Your task to perform on an android device: change the clock display to analog Image 0: 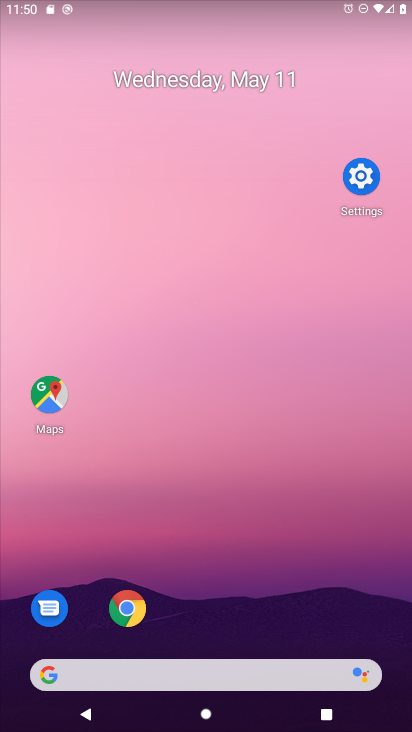
Step 0: drag from (325, 593) to (157, 37)
Your task to perform on an android device: change the clock display to analog Image 1: 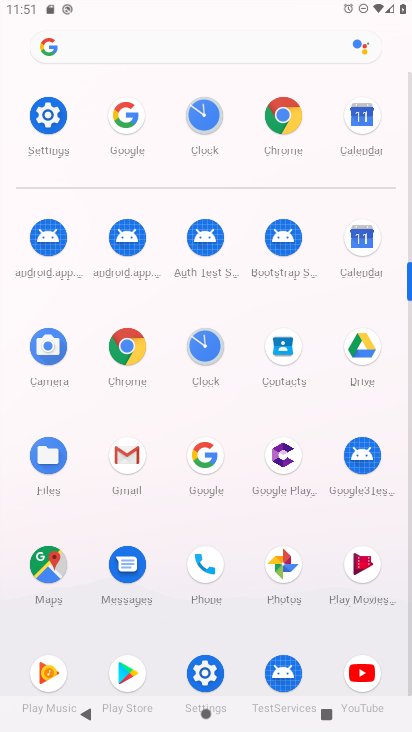
Step 1: click (211, 338)
Your task to perform on an android device: change the clock display to analog Image 2: 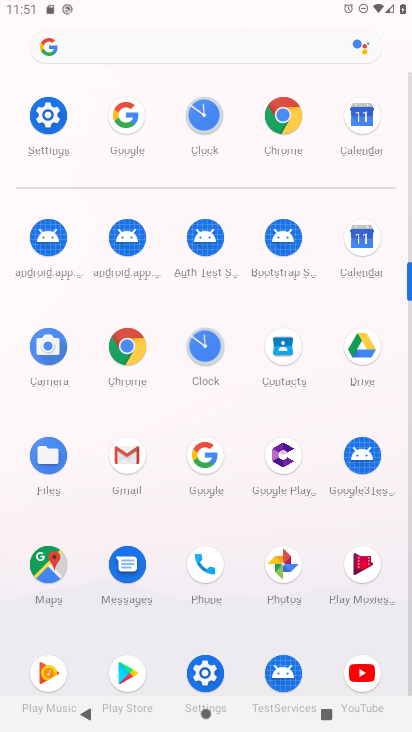
Step 2: click (211, 338)
Your task to perform on an android device: change the clock display to analog Image 3: 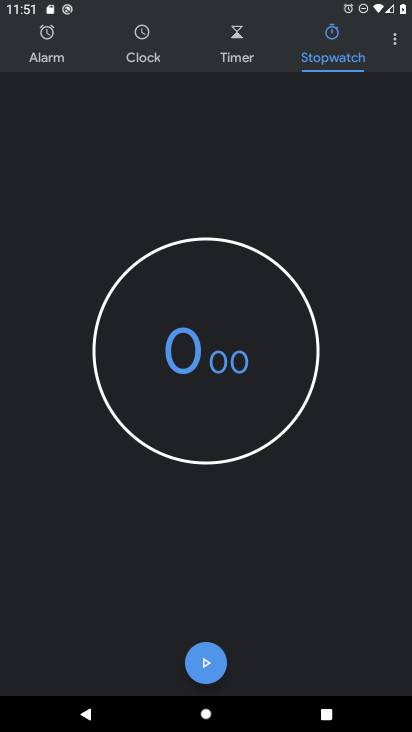
Step 3: click (211, 338)
Your task to perform on an android device: change the clock display to analog Image 4: 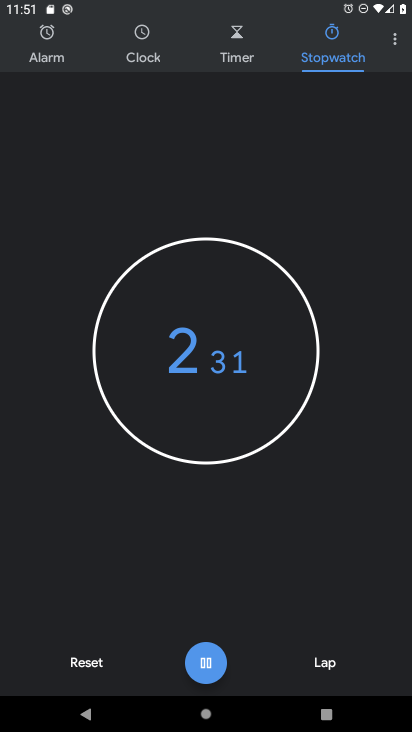
Step 4: drag from (391, 34) to (391, 80)
Your task to perform on an android device: change the clock display to analog Image 5: 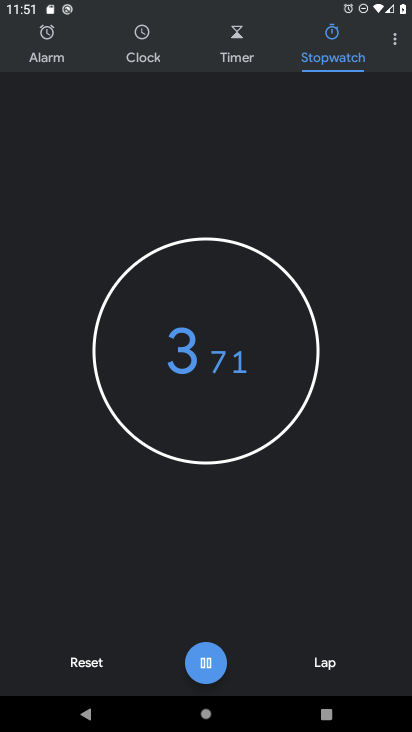
Step 5: click (207, 650)
Your task to perform on an android device: change the clock display to analog Image 6: 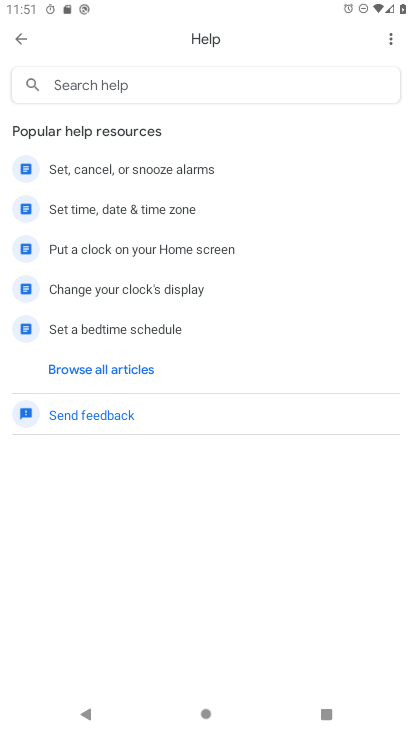
Step 6: press back button
Your task to perform on an android device: change the clock display to analog Image 7: 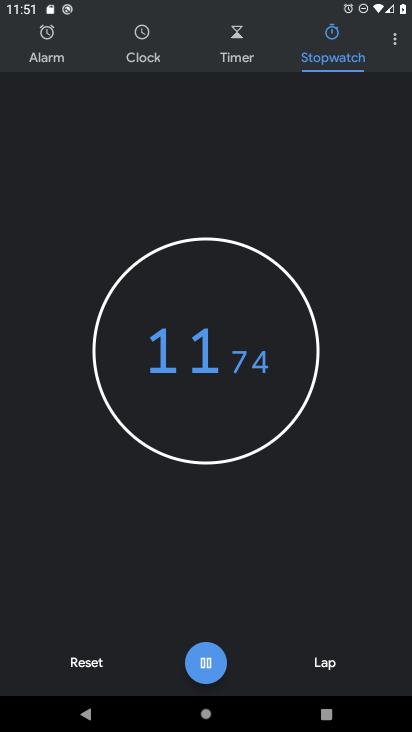
Step 7: click (207, 666)
Your task to perform on an android device: change the clock display to analog Image 8: 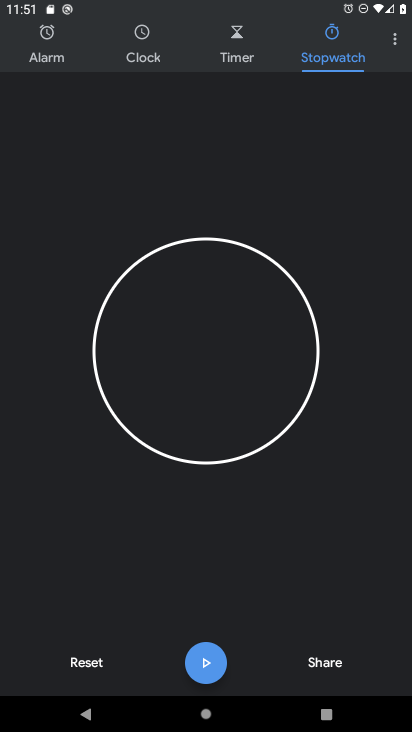
Step 8: click (389, 41)
Your task to perform on an android device: change the clock display to analog Image 9: 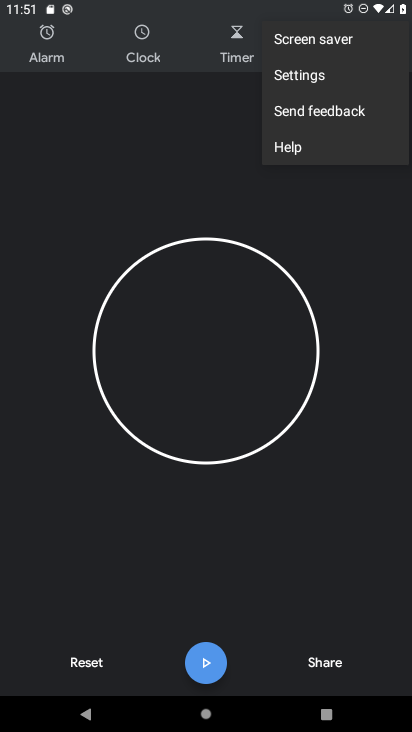
Step 9: click (306, 81)
Your task to perform on an android device: change the clock display to analog Image 10: 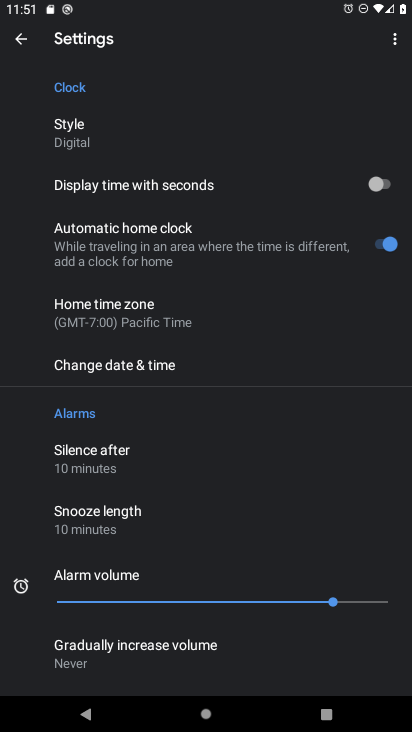
Step 10: click (100, 137)
Your task to perform on an android device: change the clock display to analog Image 11: 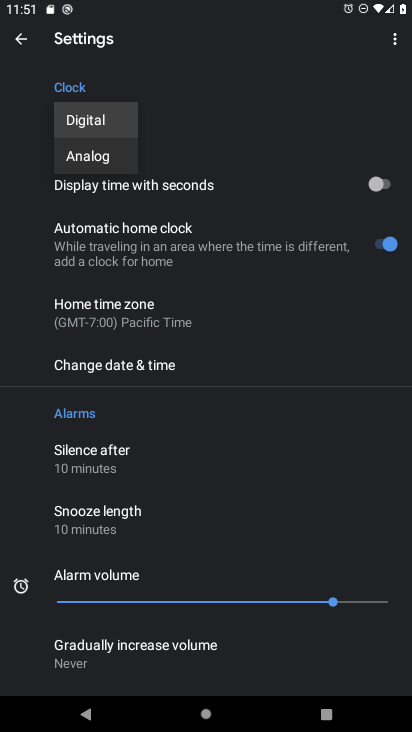
Step 11: click (113, 155)
Your task to perform on an android device: change the clock display to analog Image 12: 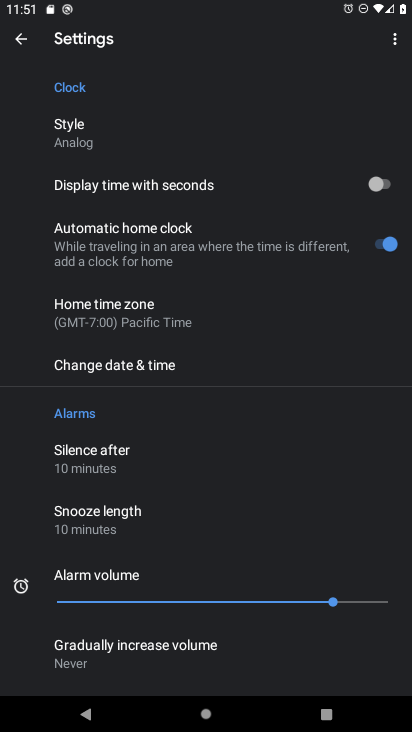
Step 12: task complete